Your task to perform on an android device: toggle pop-ups in chrome Image 0: 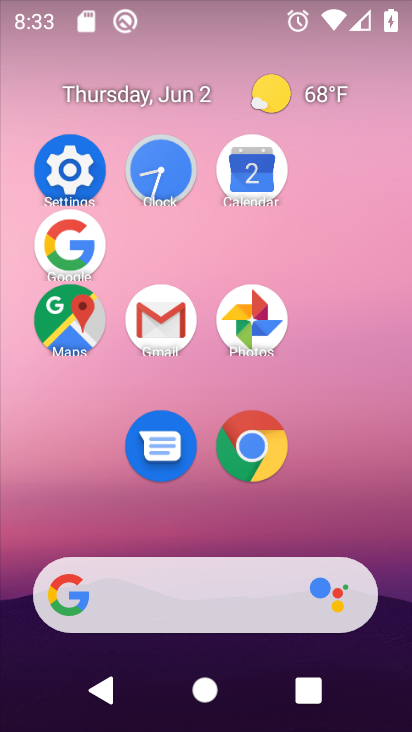
Step 0: click (281, 459)
Your task to perform on an android device: toggle pop-ups in chrome Image 1: 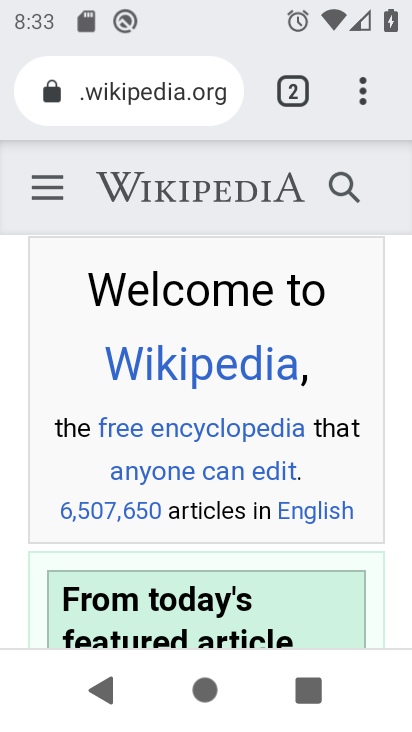
Step 1: click (362, 94)
Your task to perform on an android device: toggle pop-ups in chrome Image 2: 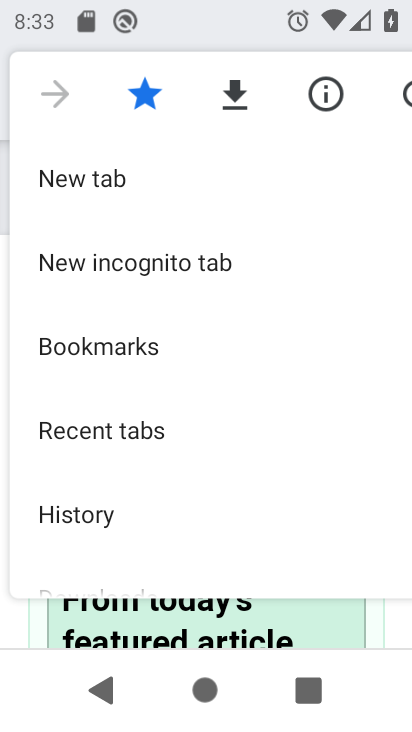
Step 2: drag from (243, 509) to (282, 136)
Your task to perform on an android device: toggle pop-ups in chrome Image 3: 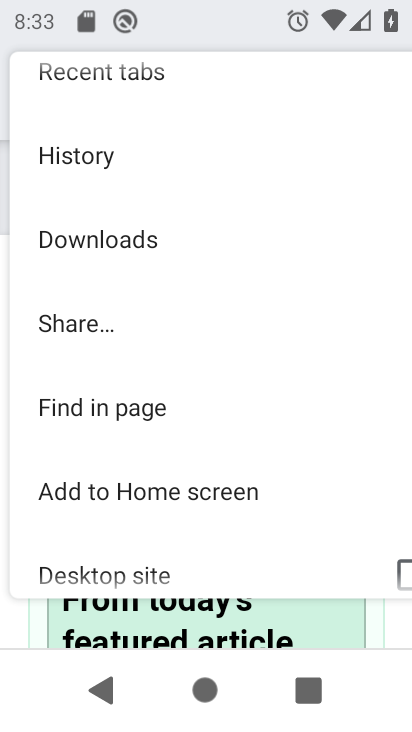
Step 3: drag from (148, 489) to (183, 126)
Your task to perform on an android device: toggle pop-ups in chrome Image 4: 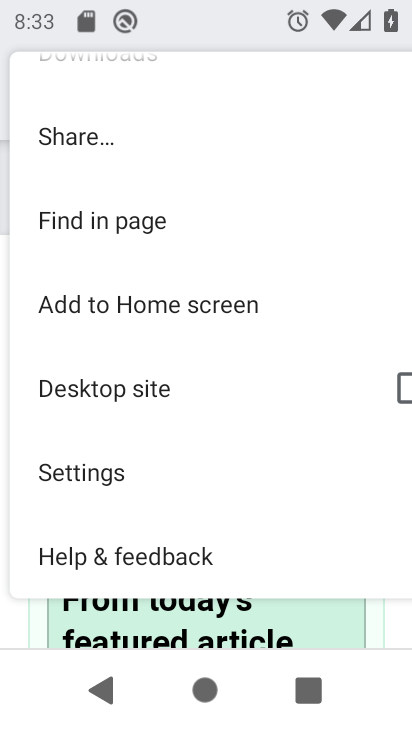
Step 4: click (129, 480)
Your task to perform on an android device: toggle pop-ups in chrome Image 5: 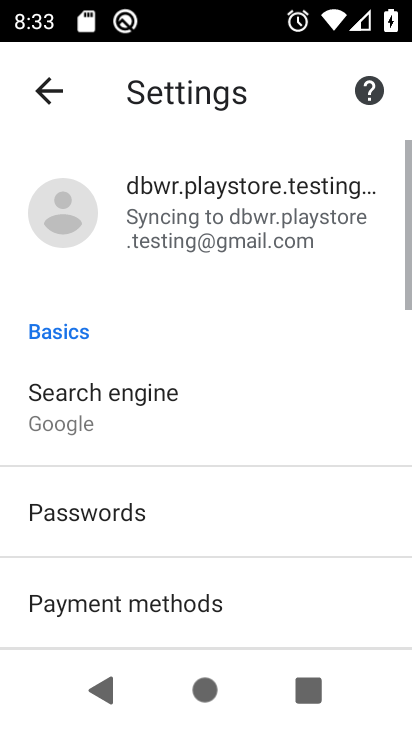
Step 5: drag from (145, 519) to (194, 199)
Your task to perform on an android device: toggle pop-ups in chrome Image 6: 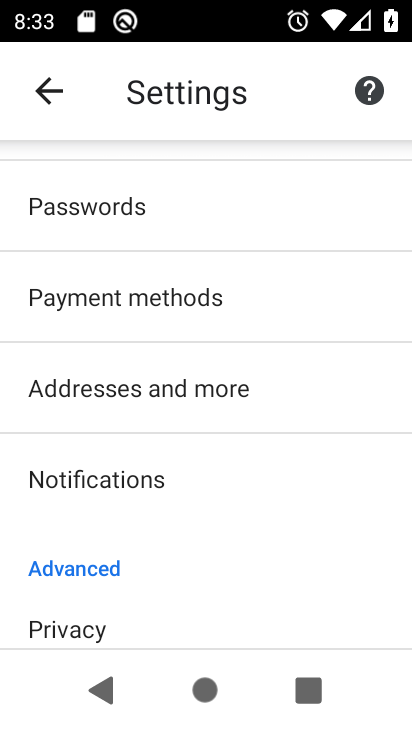
Step 6: drag from (176, 545) to (225, 227)
Your task to perform on an android device: toggle pop-ups in chrome Image 7: 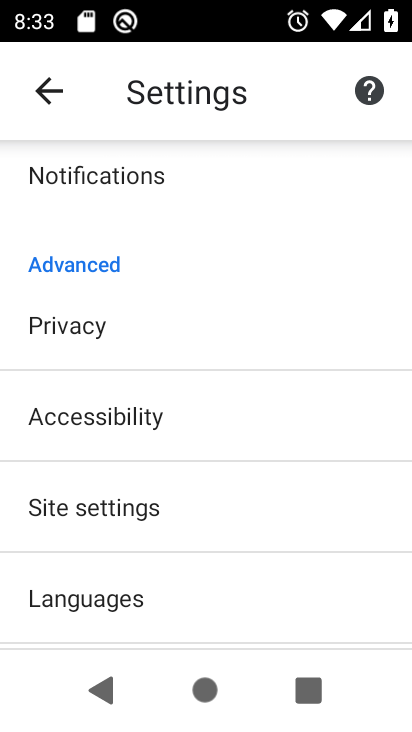
Step 7: click (181, 494)
Your task to perform on an android device: toggle pop-ups in chrome Image 8: 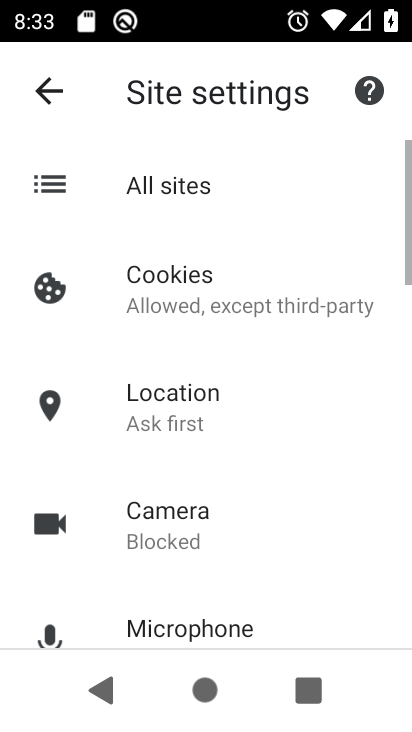
Step 8: drag from (184, 494) to (236, 199)
Your task to perform on an android device: toggle pop-ups in chrome Image 9: 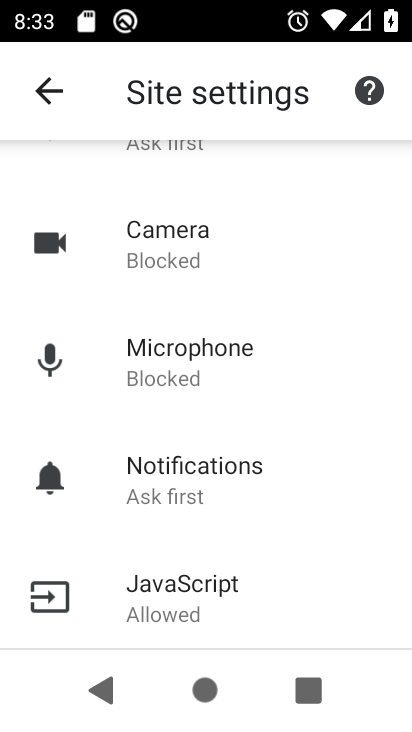
Step 9: drag from (236, 543) to (250, 204)
Your task to perform on an android device: toggle pop-ups in chrome Image 10: 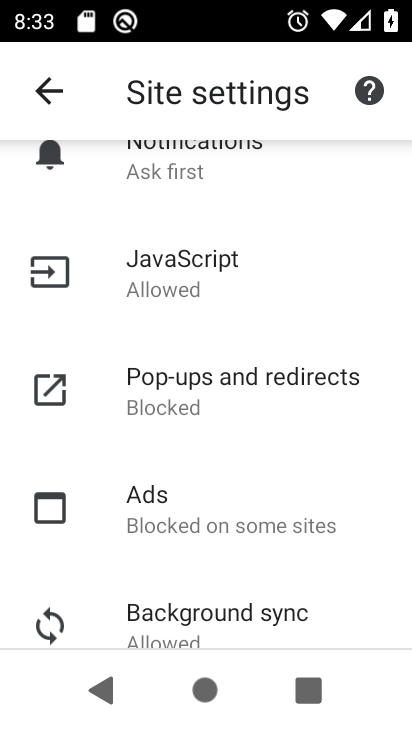
Step 10: click (242, 393)
Your task to perform on an android device: toggle pop-ups in chrome Image 11: 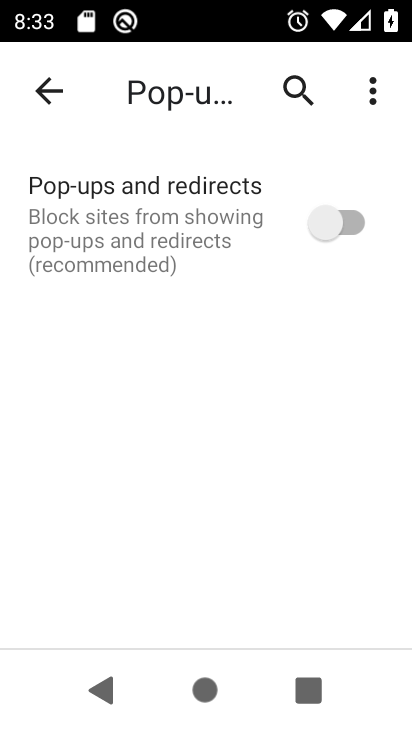
Step 11: click (343, 217)
Your task to perform on an android device: toggle pop-ups in chrome Image 12: 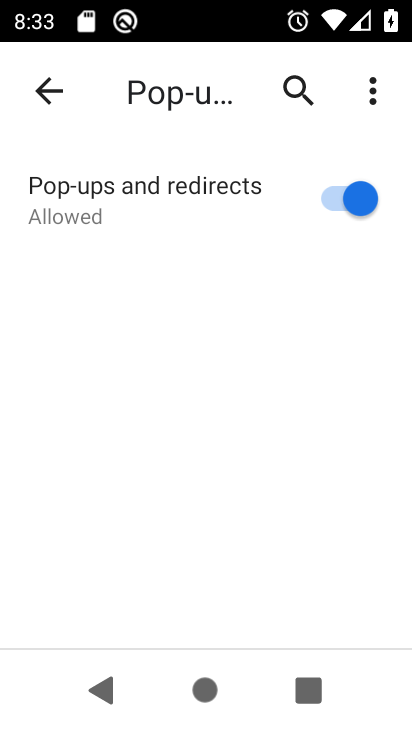
Step 12: task complete